Your task to perform on an android device: change the upload size in google photos Image 0: 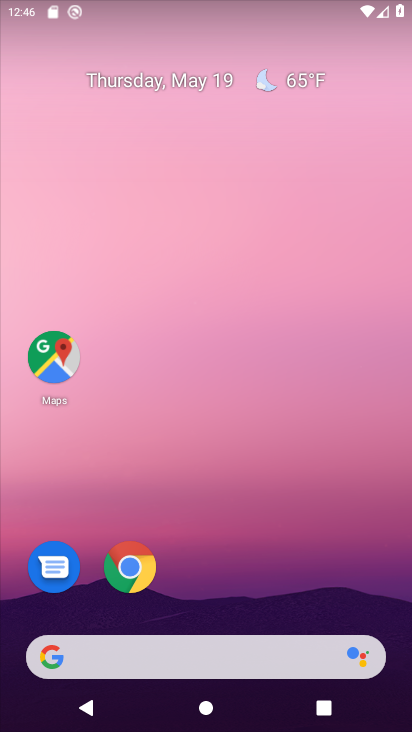
Step 0: drag from (258, 579) to (233, 181)
Your task to perform on an android device: change the upload size in google photos Image 1: 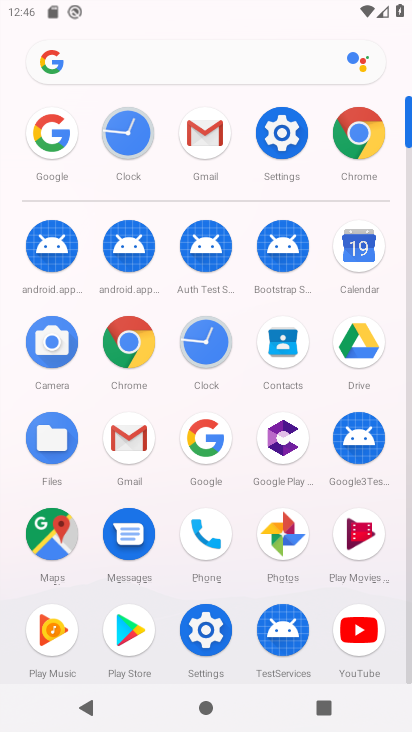
Step 1: click (271, 543)
Your task to perform on an android device: change the upload size in google photos Image 2: 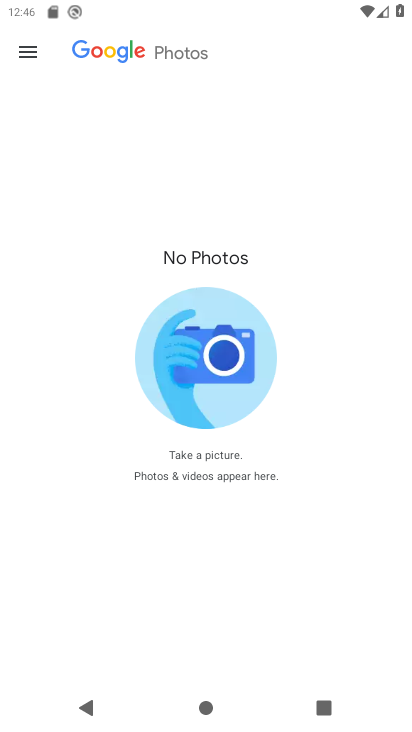
Step 2: click (23, 55)
Your task to perform on an android device: change the upload size in google photos Image 3: 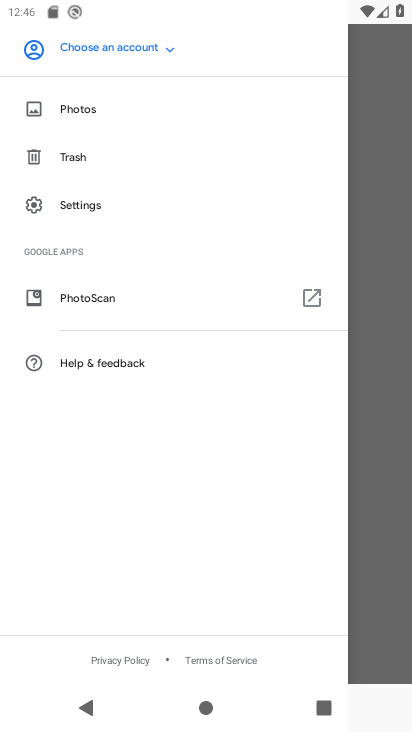
Step 3: click (155, 48)
Your task to perform on an android device: change the upload size in google photos Image 4: 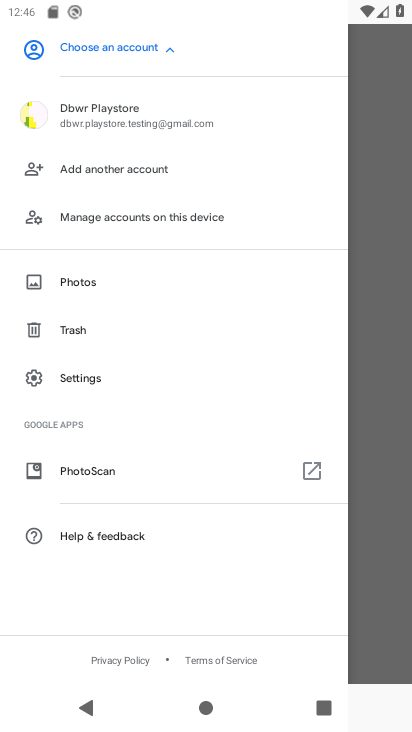
Step 4: click (160, 112)
Your task to perform on an android device: change the upload size in google photos Image 5: 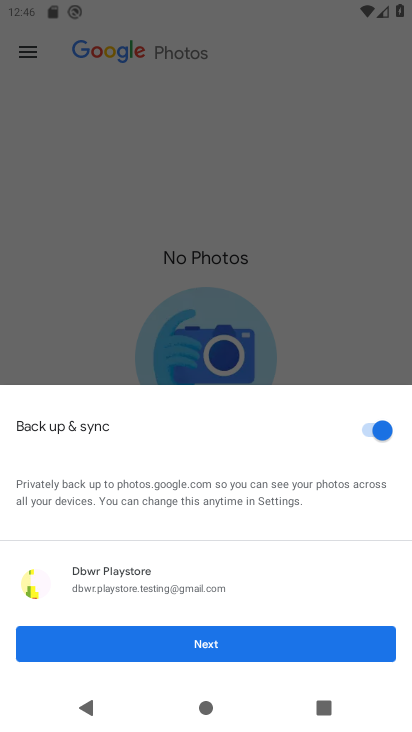
Step 5: click (226, 630)
Your task to perform on an android device: change the upload size in google photos Image 6: 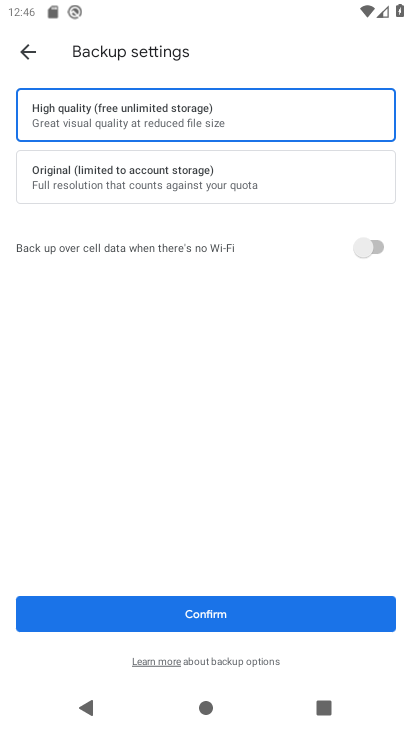
Step 6: click (238, 173)
Your task to perform on an android device: change the upload size in google photos Image 7: 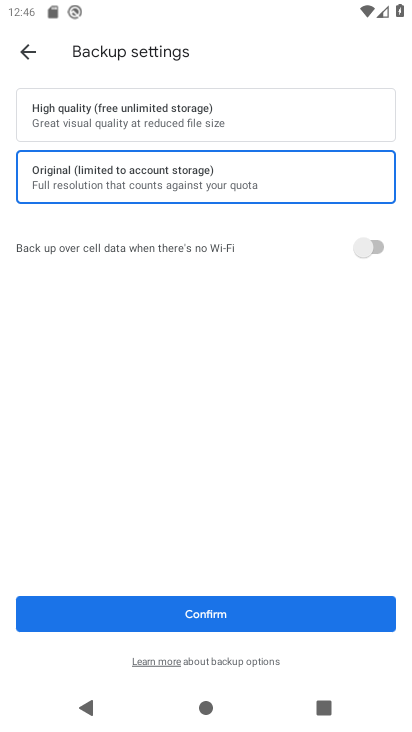
Step 7: click (247, 614)
Your task to perform on an android device: change the upload size in google photos Image 8: 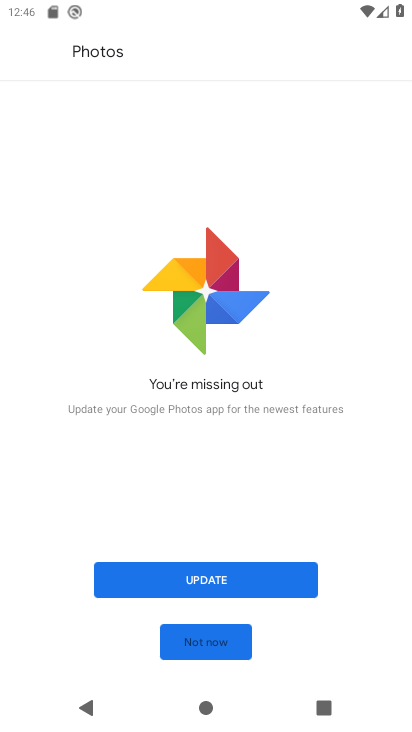
Step 8: task complete